Your task to perform on an android device: clear history in the chrome app Image 0: 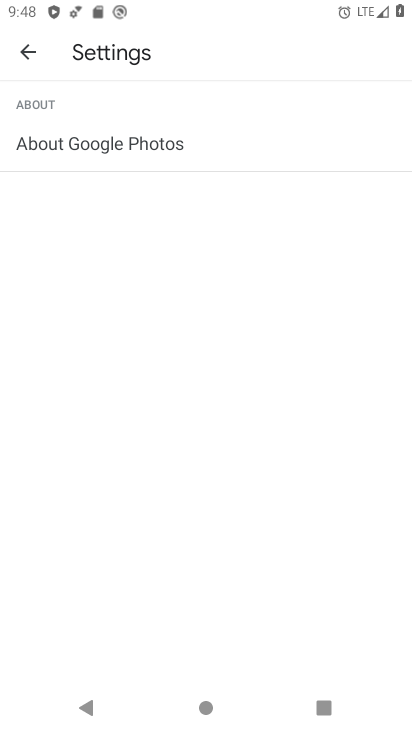
Step 0: press home button
Your task to perform on an android device: clear history in the chrome app Image 1: 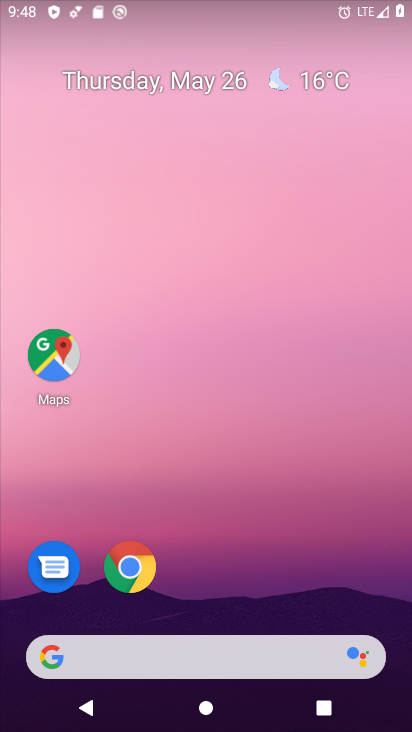
Step 1: click (148, 565)
Your task to perform on an android device: clear history in the chrome app Image 2: 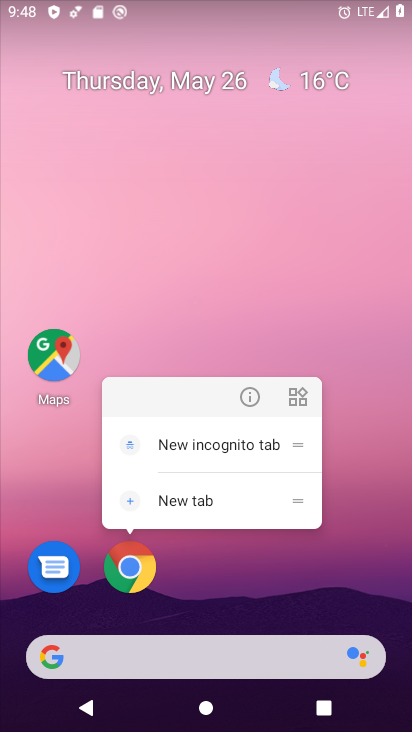
Step 2: click (134, 563)
Your task to perform on an android device: clear history in the chrome app Image 3: 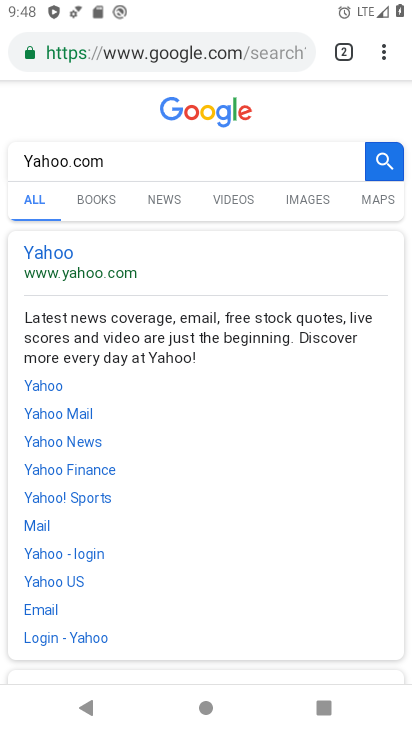
Step 3: click (385, 48)
Your task to perform on an android device: clear history in the chrome app Image 4: 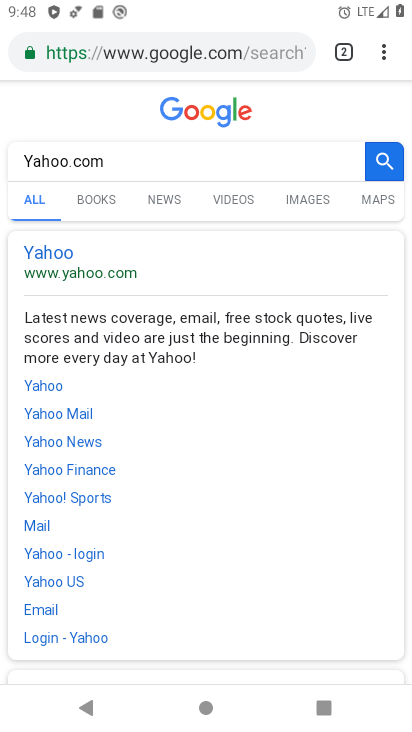
Step 4: click (385, 48)
Your task to perform on an android device: clear history in the chrome app Image 5: 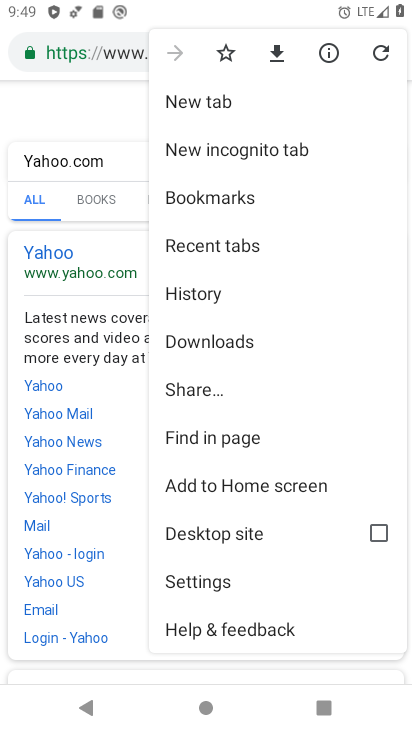
Step 5: click (213, 292)
Your task to perform on an android device: clear history in the chrome app Image 6: 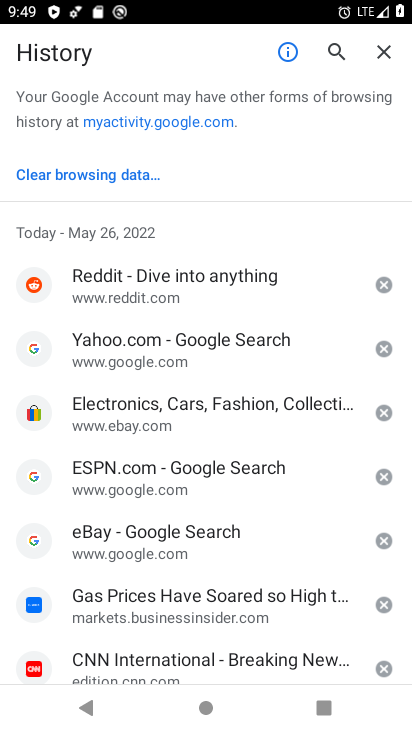
Step 6: click (87, 172)
Your task to perform on an android device: clear history in the chrome app Image 7: 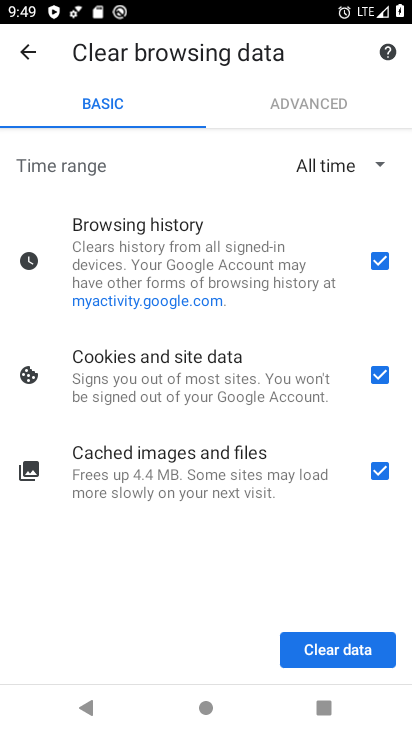
Step 7: click (315, 640)
Your task to perform on an android device: clear history in the chrome app Image 8: 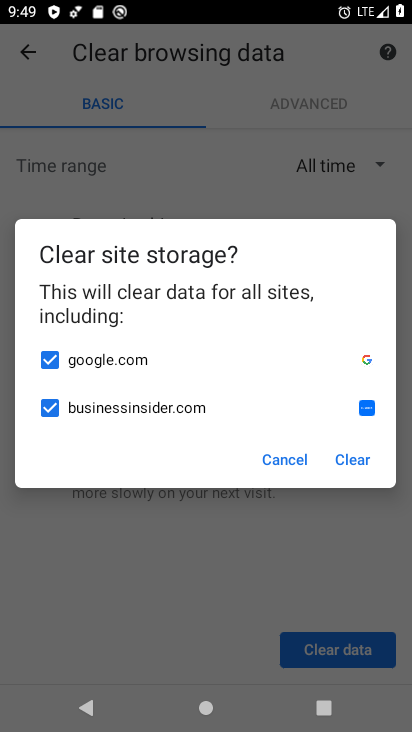
Step 8: click (351, 453)
Your task to perform on an android device: clear history in the chrome app Image 9: 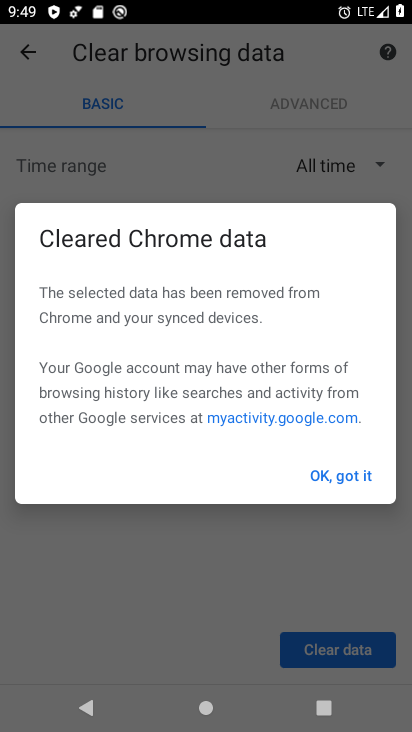
Step 9: click (351, 472)
Your task to perform on an android device: clear history in the chrome app Image 10: 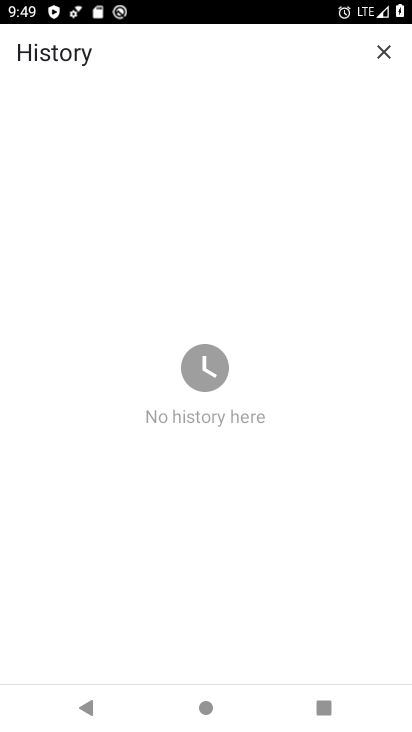
Step 10: task complete